Your task to perform on an android device: Open eBay Image 0: 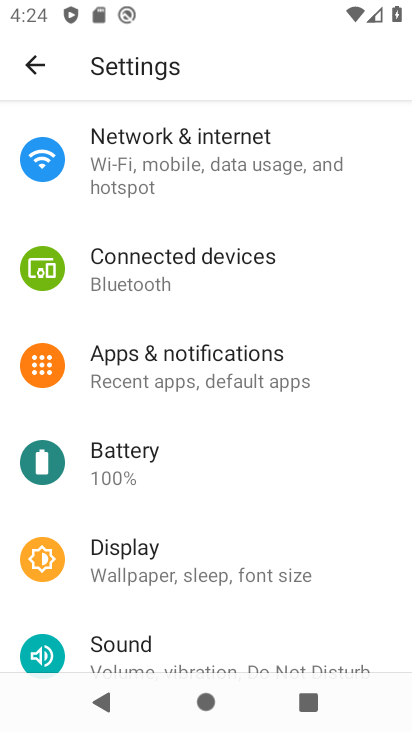
Step 0: press home button
Your task to perform on an android device: Open eBay Image 1: 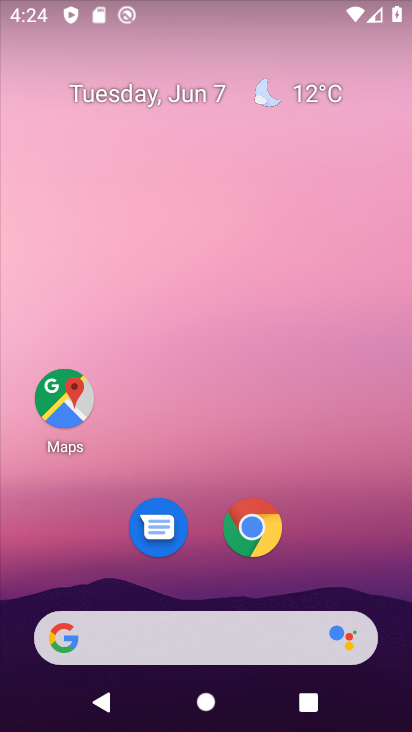
Step 1: click (252, 527)
Your task to perform on an android device: Open eBay Image 2: 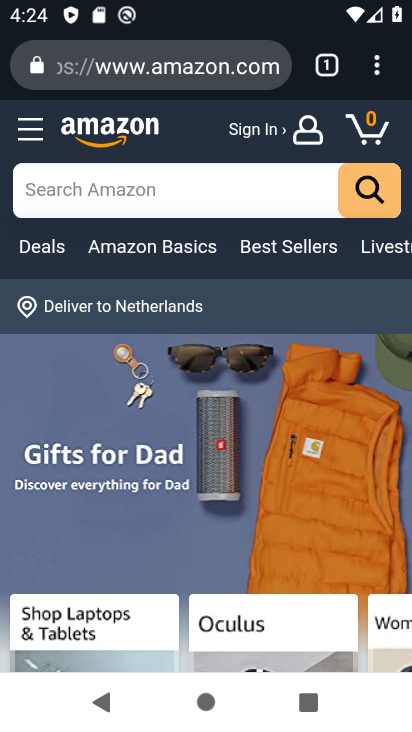
Step 2: click (224, 66)
Your task to perform on an android device: Open eBay Image 3: 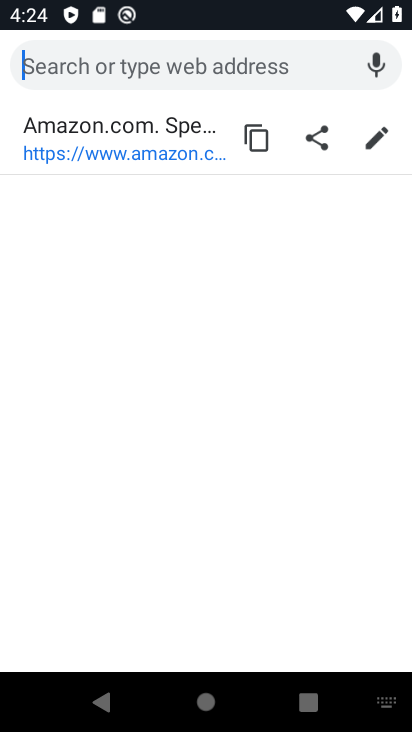
Step 3: type "eBay"
Your task to perform on an android device: Open eBay Image 4: 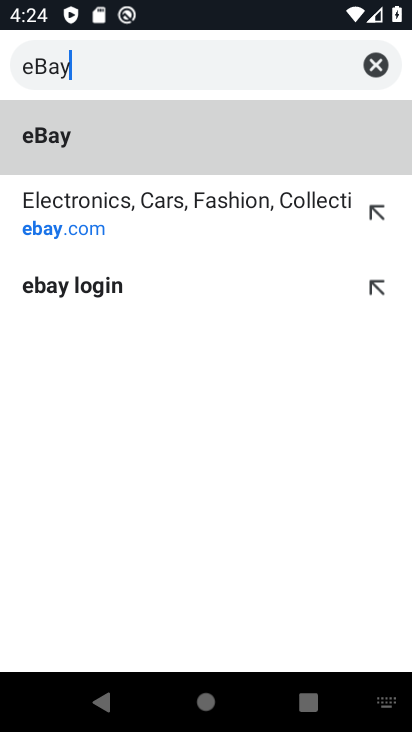
Step 4: click (50, 143)
Your task to perform on an android device: Open eBay Image 5: 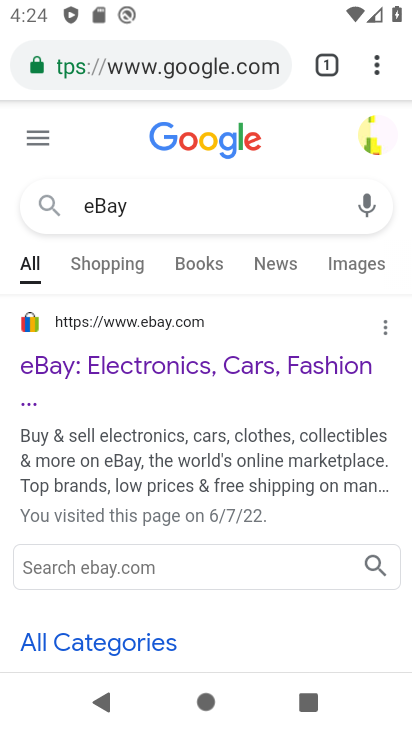
Step 5: click (147, 376)
Your task to perform on an android device: Open eBay Image 6: 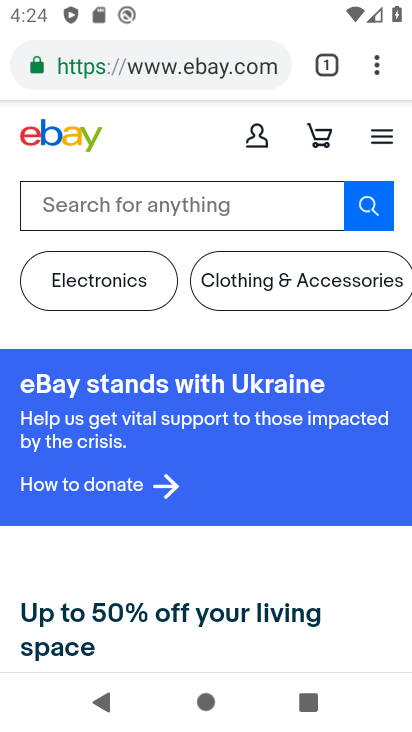
Step 6: task complete